Your task to perform on an android device: toggle data saver in the chrome app Image 0: 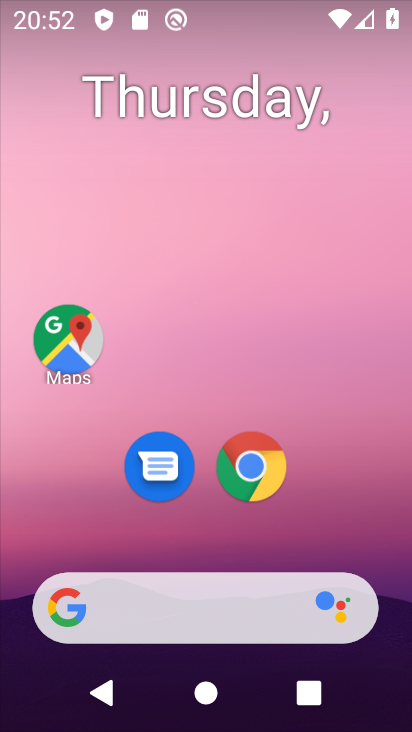
Step 0: drag from (193, 538) to (184, 16)
Your task to perform on an android device: toggle data saver in the chrome app Image 1: 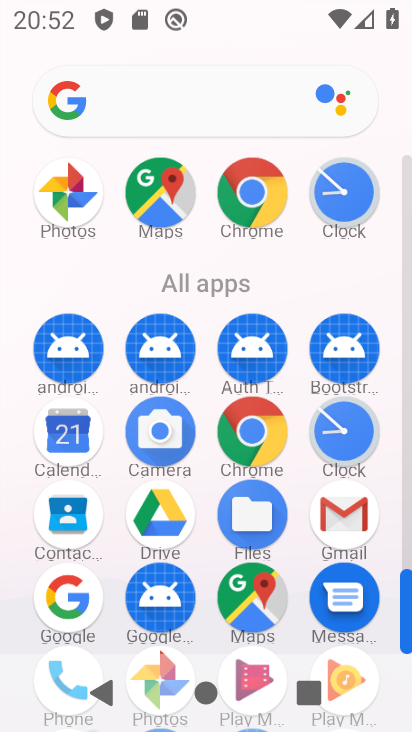
Step 1: click (279, 451)
Your task to perform on an android device: toggle data saver in the chrome app Image 2: 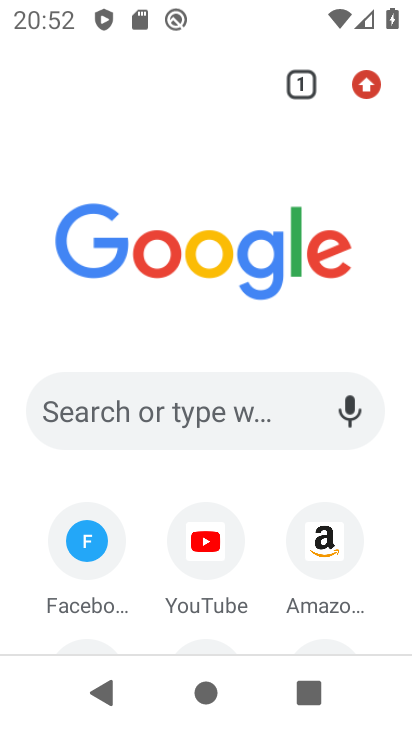
Step 2: drag from (371, 80) to (175, 516)
Your task to perform on an android device: toggle data saver in the chrome app Image 3: 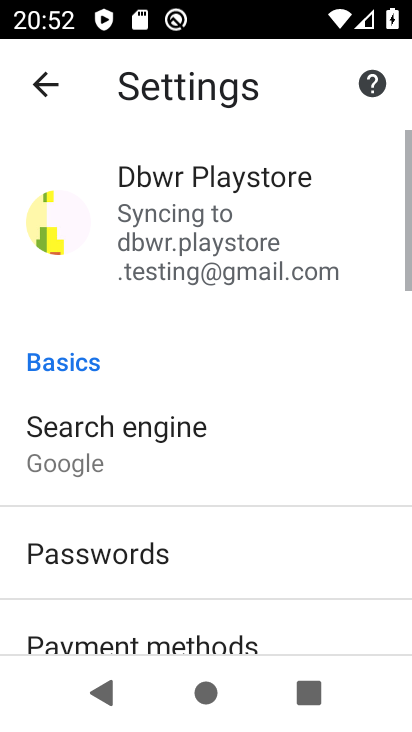
Step 3: drag from (192, 507) to (145, 45)
Your task to perform on an android device: toggle data saver in the chrome app Image 4: 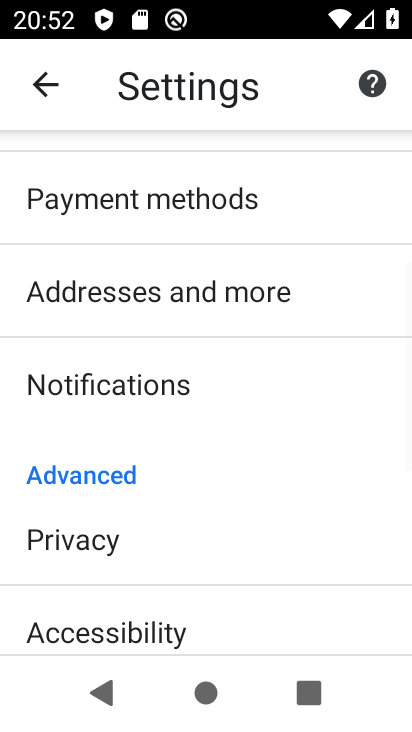
Step 4: drag from (126, 575) to (105, 173)
Your task to perform on an android device: toggle data saver in the chrome app Image 5: 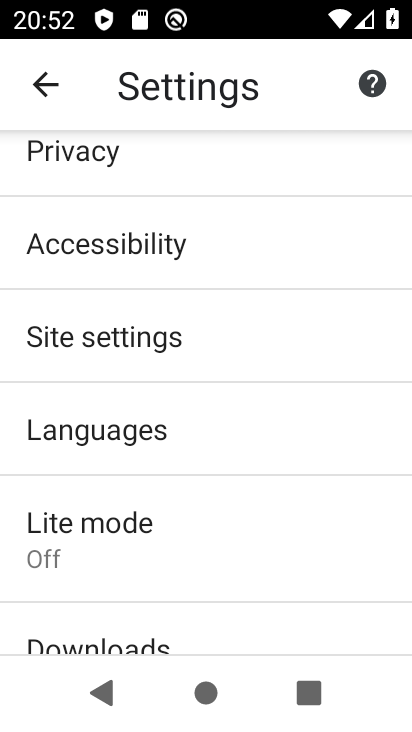
Step 5: drag from (252, 548) to (238, 305)
Your task to perform on an android device: toggle data saver in the chrome app Image 6: 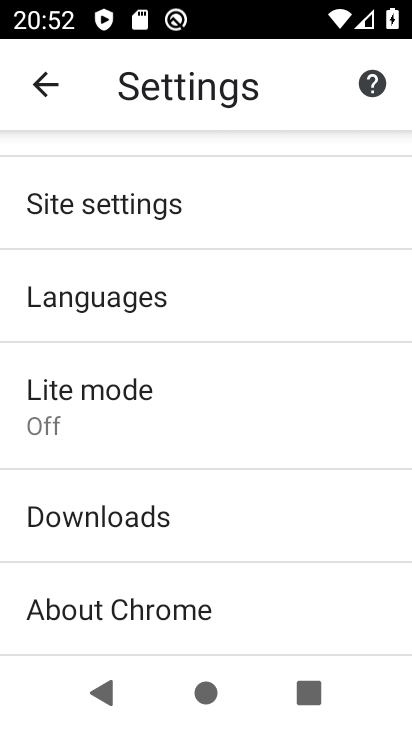
Step 6: click (135, 405)
Your task to perform on an android device: toggle data saver in the chrome app Image 7: 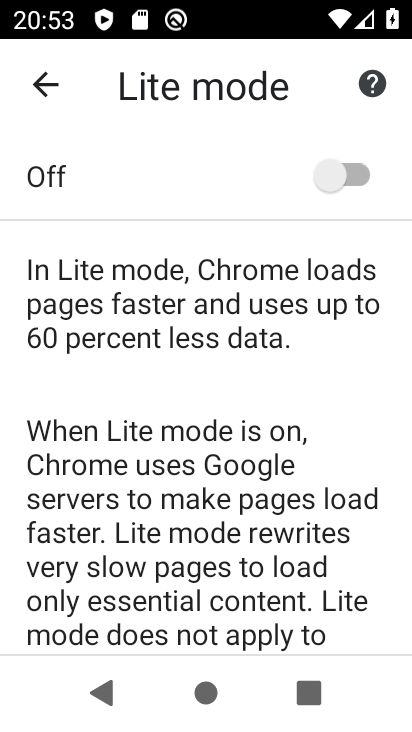
Step 7: task complete